Your task to perform on an android device: What's on my calendar tomorrow? Image 0: 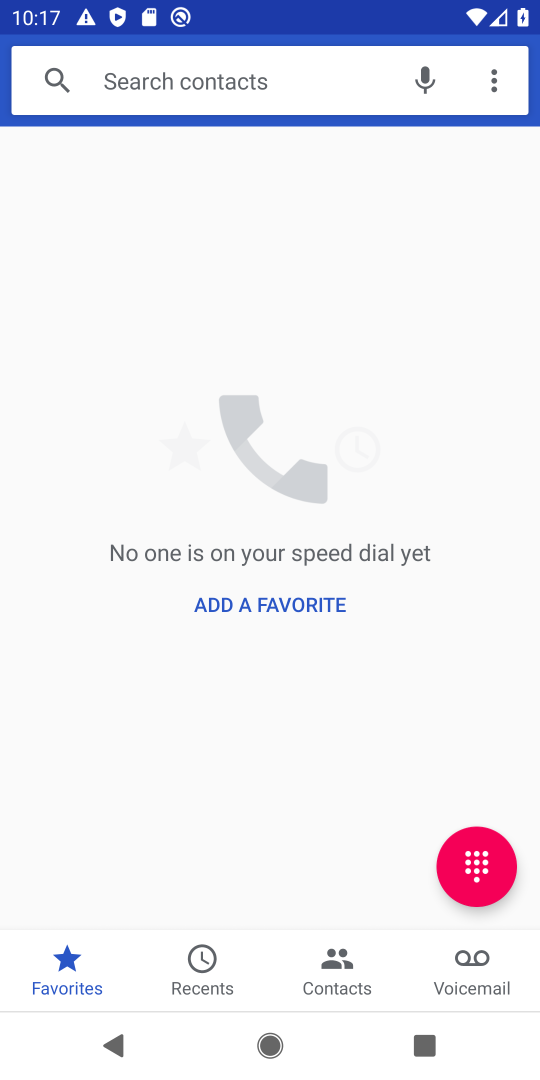
Step 0: press home button
Your task to perform on an android device: What's on my calendar tomorrow? Image 1: 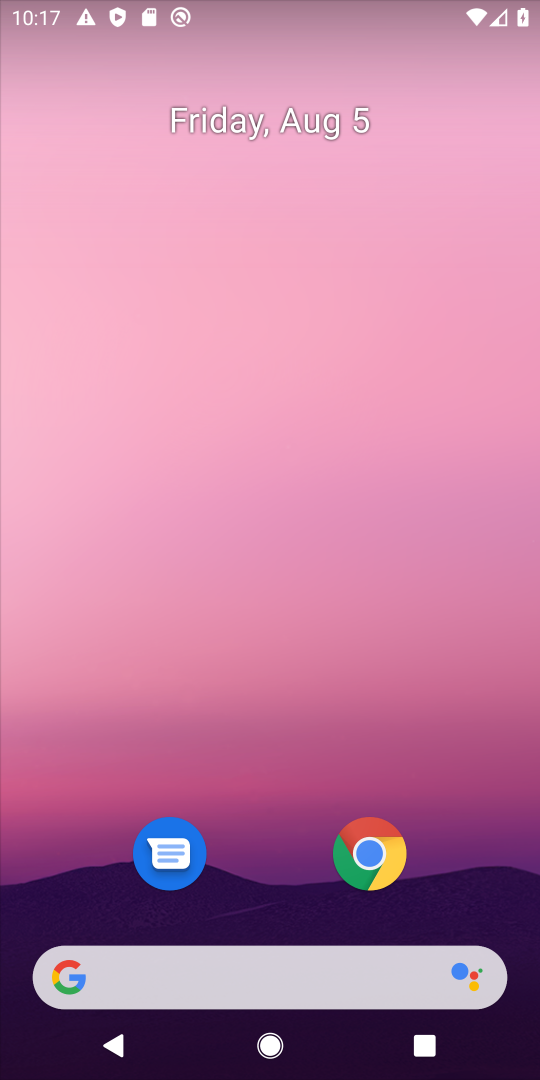
Step 1: drag from (257, 811) to (137, 100)
Your task to perform on an android device: What's on my calendar tomorrow? Image 2: 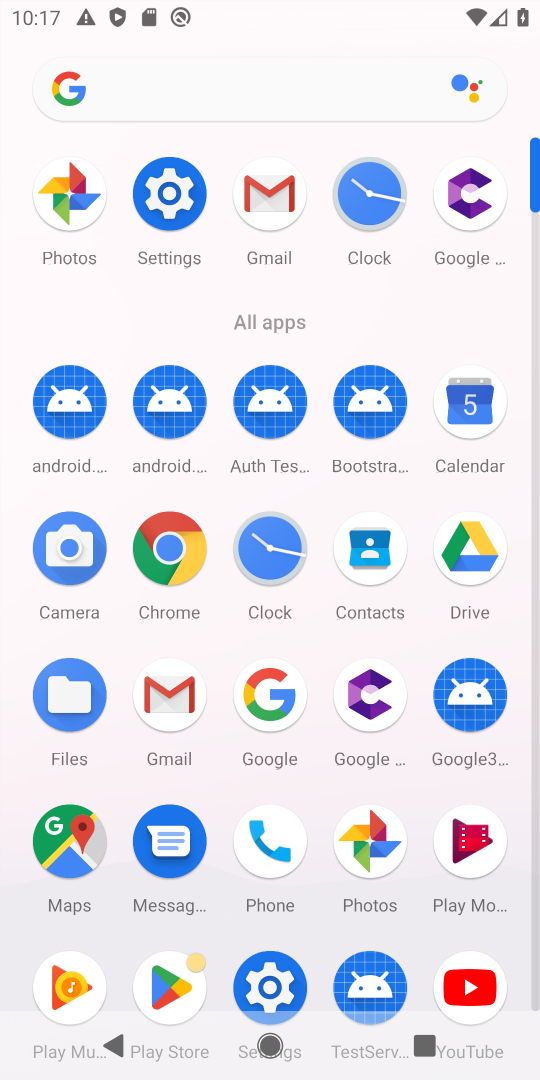
Step 2: click (465, 419)
Your task to perform on an android device: What's on my calendar tomorrow? Image 3: 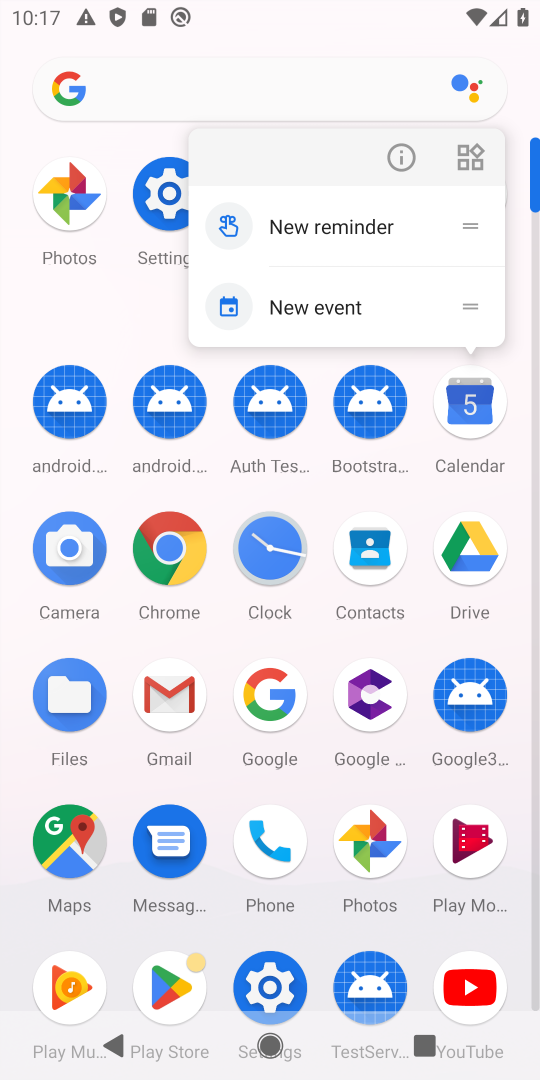
Step 3: click (463, 406)
Your task to perform on an android device: What's on my calendar tomorrow? Image 4: 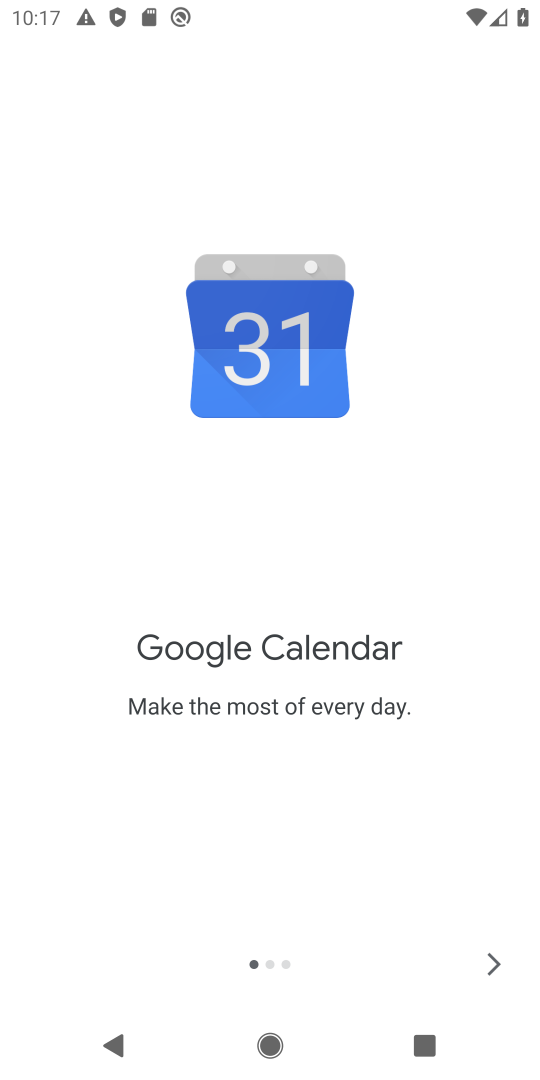
Step 4: click (494, 959)
Your task to perform on an android device: What's on my calendar tomorrow? Image 5: 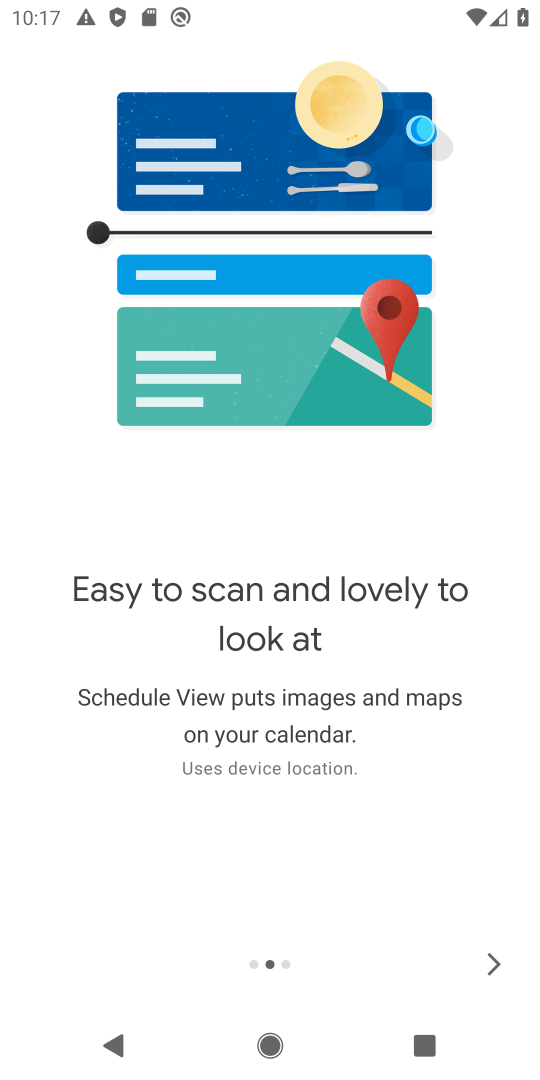
Step 5: click (498, 958)
Your task to perform on an android device: What's on my calendar tomorrow? Image 6: 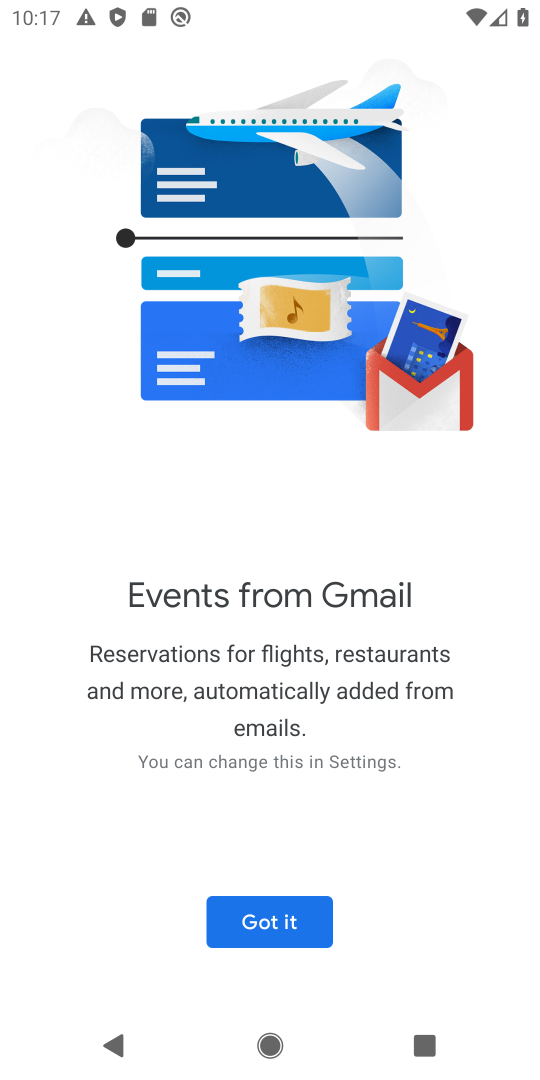
Step 6: click (312, 923)
Your task to perform on an android device: What's on my calendar tomorrow? Image 7: 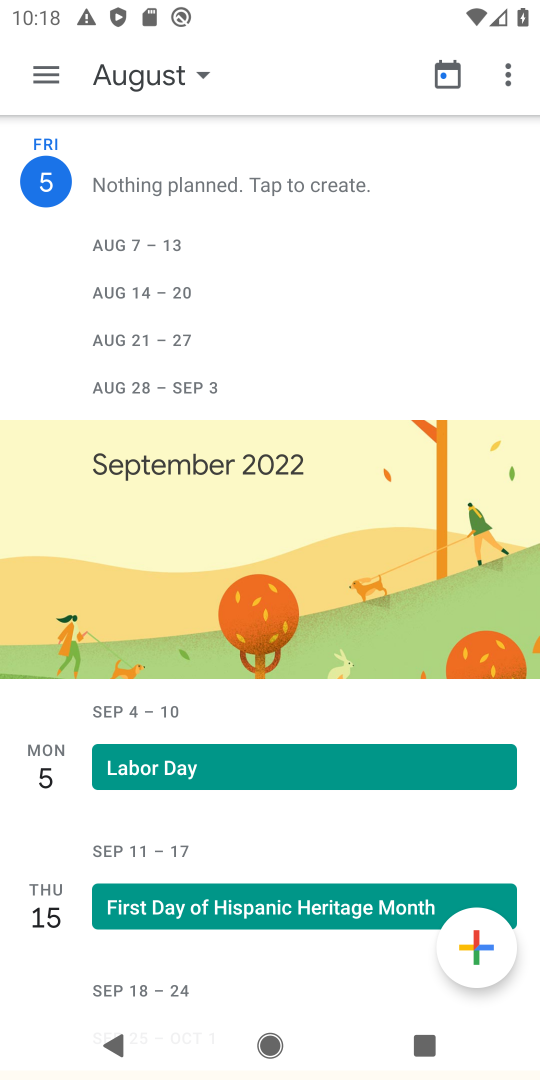
Step 7: click (170, 68)
Your task to perform on an android device: What's on my calendar tomorrow? Image 8: 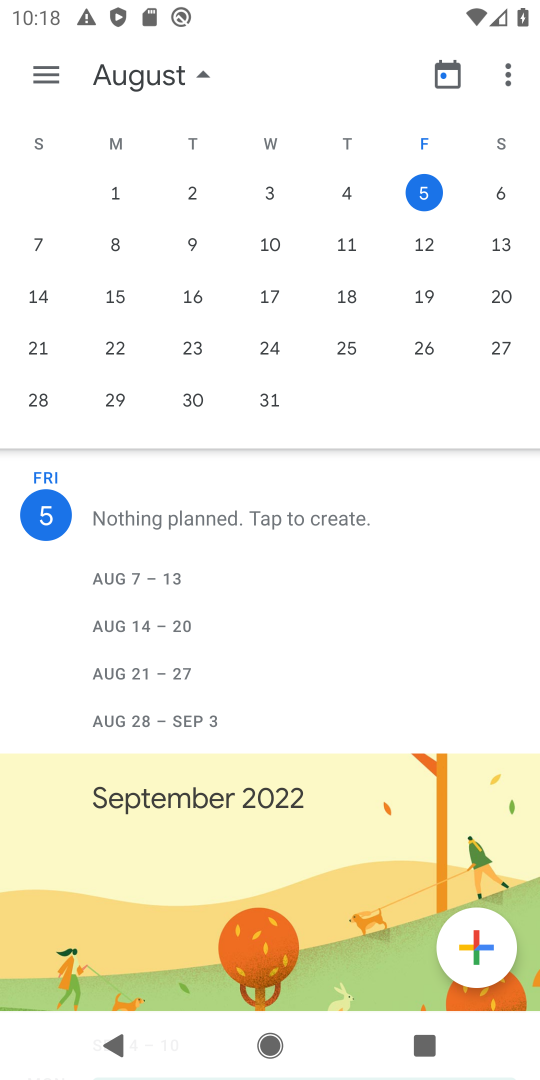
Step 8: click (503, 200)
Your task to perform on an android device: What's on my calendar tomorrow? Image 9: 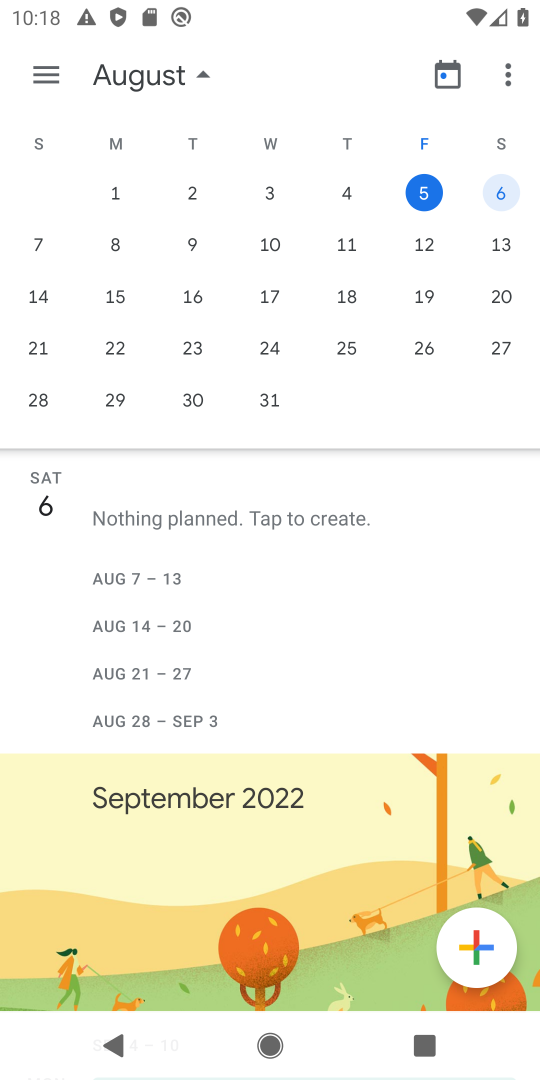
Step 9: task complete